Your task to perform on an android device: star an email in the gmail app Image 0: 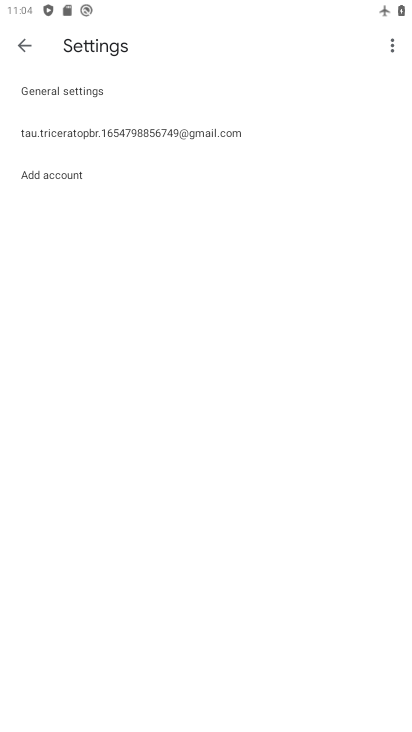
Step 0: press home button
Your task to perform on an android device: star an email in the gmail app Image 1: 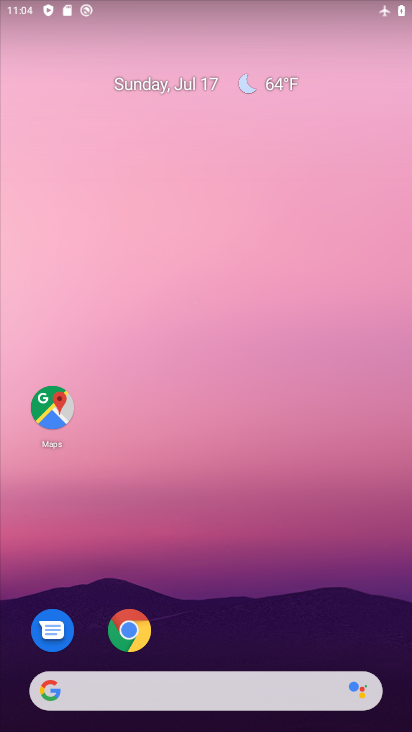
Step 1: drag from (350, 625) to (285, 95)
Your task to perform on an android device: star an email in the gmail app Image 2: 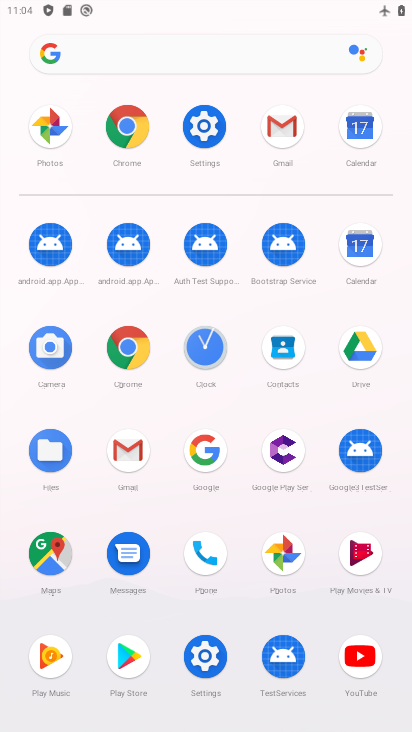
Step 2: click (124, 446)
Your task to perform on an android device: star an email in the gmail app Image 3: 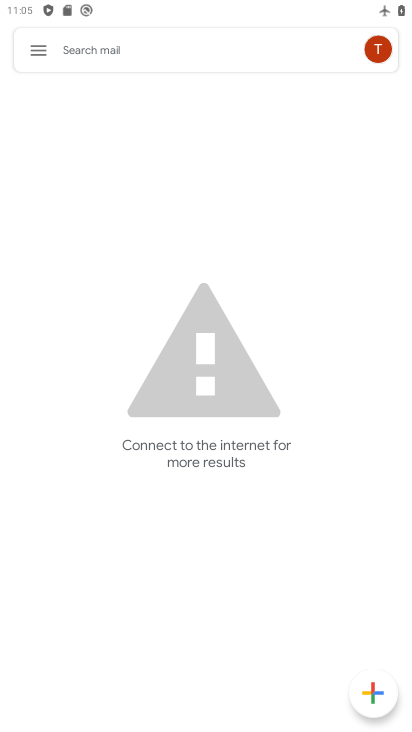
Step 3: click (38, 56)
Your task to perform on an android device: star an email in the gmail app Image 4: 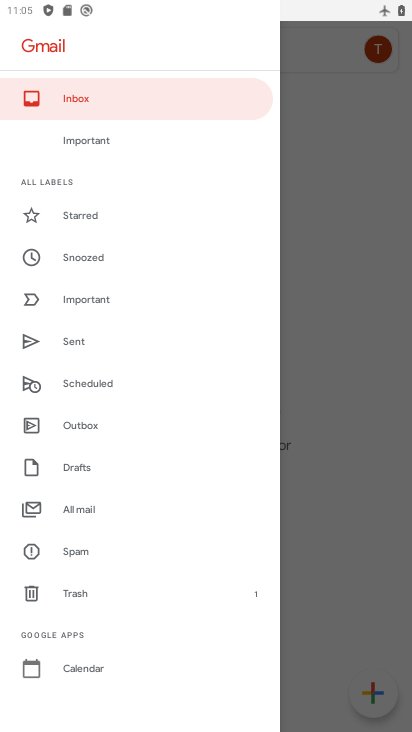
Step 4: click (75, 505)
Your task to perform on an android device: star an email in the gmail app Image 5: 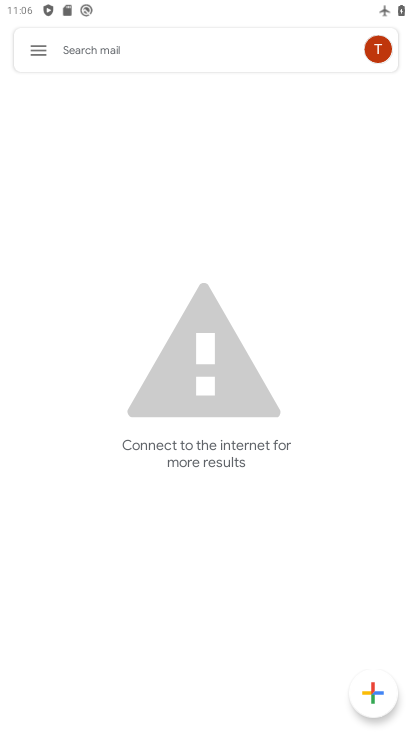
Step 5: task complete